Your task to perform on an android device: How do I get to the nearest T-Mobile Store? Image 0: 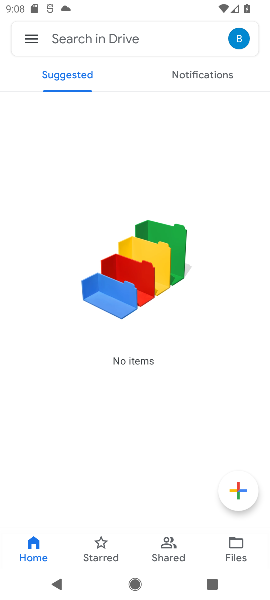
Step 0: press home button
Your task to perform on an android device: How do I get to the nearest T-Mobile Store? Image 1: 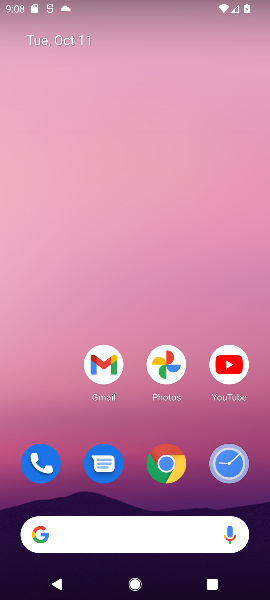
Step 1: drag from (97, 497) to (96, 179)
Your task to perform on an android device: How do I get to the nearest T-Mobile Store? Image 2: 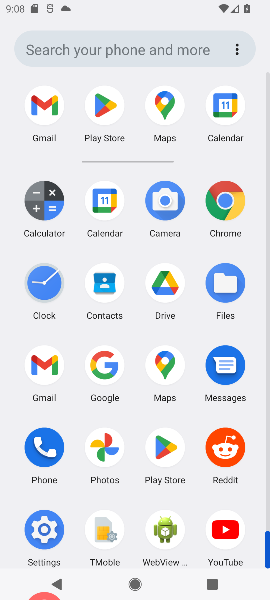
Step 2: click (98, 358)
Your task to perform on an android device: How do I get to the nearest T-Mobile Store? Image 3: 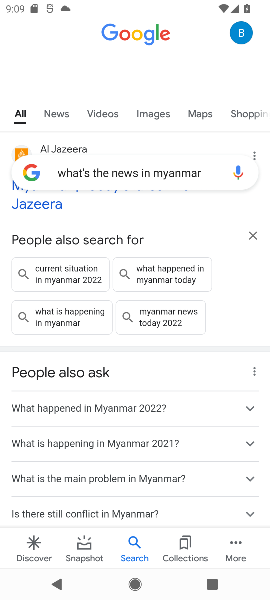
Step 3: click (162, 172)
Your task to perform on an android device: How do I get to the nearest T-Mobile Store? Image 4: 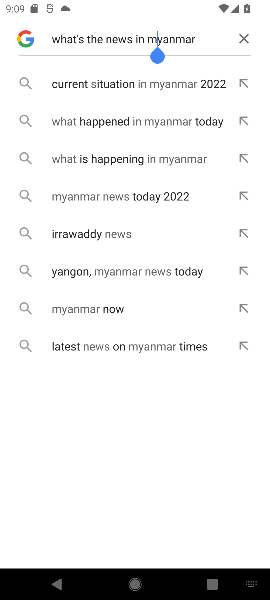
Step 4: click (248, 40)
Your task to perform on an android device: How do I get to the nearest T-Mobile Store? Image 5: 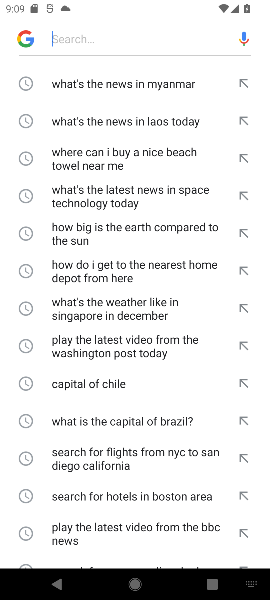
Step 5: click (107, 40)
Your task to perform on an android device: How do I get to the nearest T-Mobile Store? Image 6: 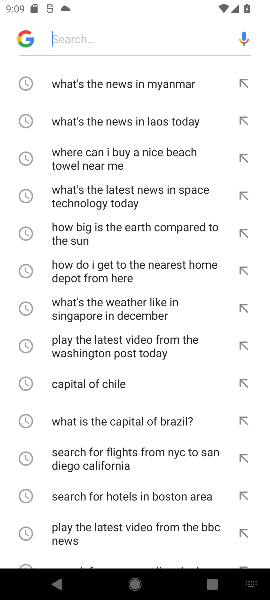
Step 6: type ""
Your task to perform on an android device: How do I get to the nearest T-Mobile Store? Image 7: 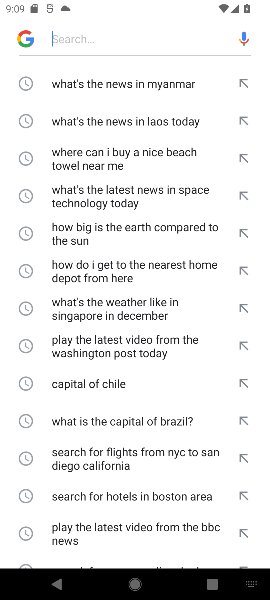
Step 7: type "How do I get to the nearest T-Mobile Store? "
Your task to perform on an android device: How do I get to the nearest T-Mobile Store? Image 8: 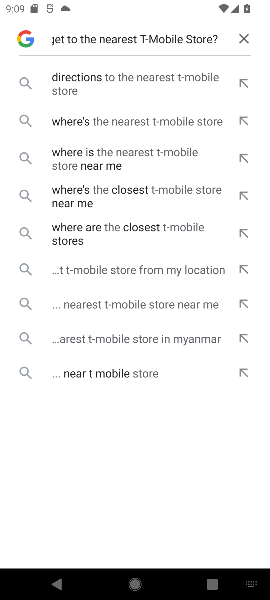
Step 8: click (114, 73)
Your task to perform on an android device: How do I get to the nearest T-Mobile Store? Image 9: 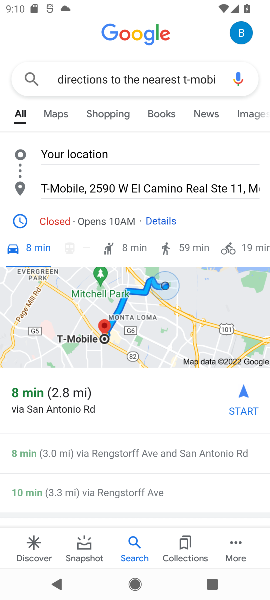
Step 9: task complete